Your task to perform on an android device: Show me productivity apps on the Play Store Image 0: 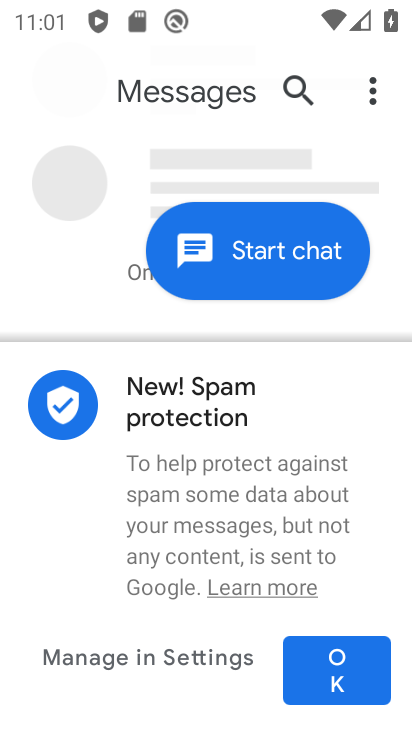
Step 0: press back button
Your task to perform on an android device: Show me productivity apps on the Play Store Image 1: 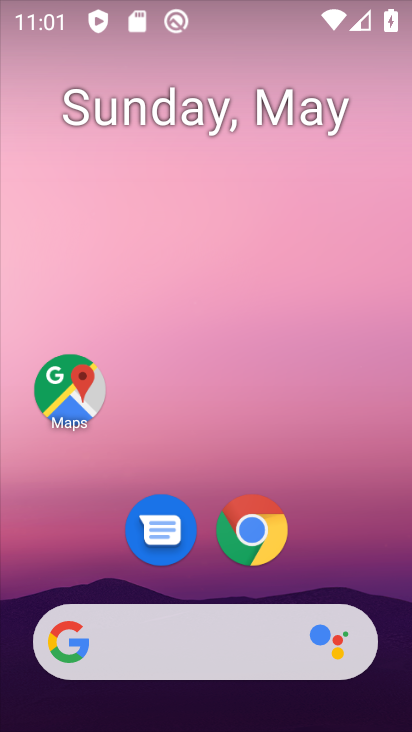
Step 1: drag from (203, 594) to (241, 21)
Your task to perform on an android device: Show me productivity apps on the Play Store Image 2: 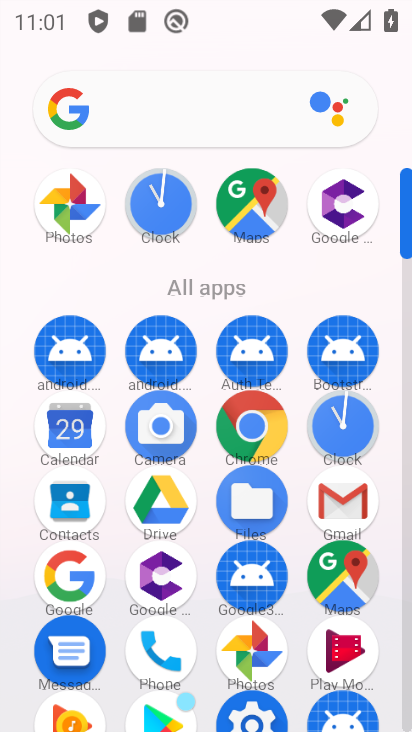
Step 2: click (164, 720)
Your task to perform on an android device: Show me productivity apps on the Play Store Image 3: 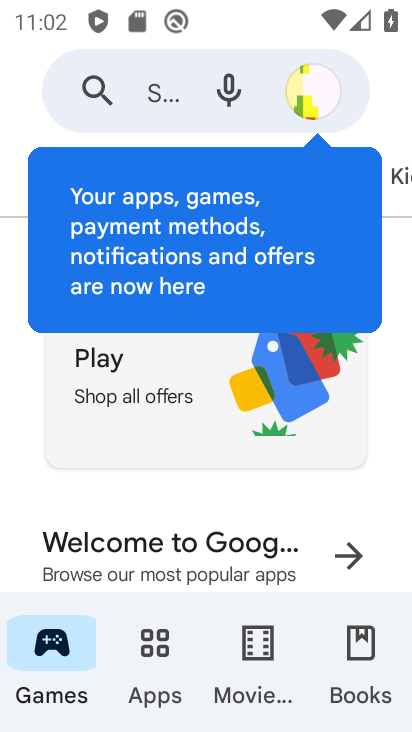
Step 3: click (162, 645)
Your task to perform on an android device: Show me productivity apps on the Play Store Image 4: 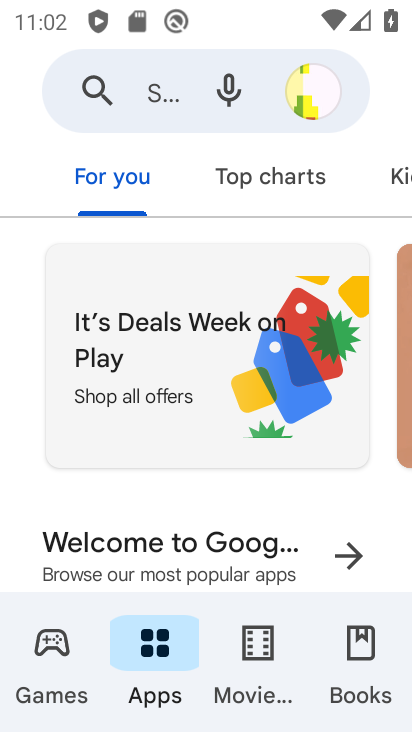
Step 4: drag from (184, 534) to (301, 15)
Your task to perform on an android device: Show me productivity apps on the Play Store Image 5: 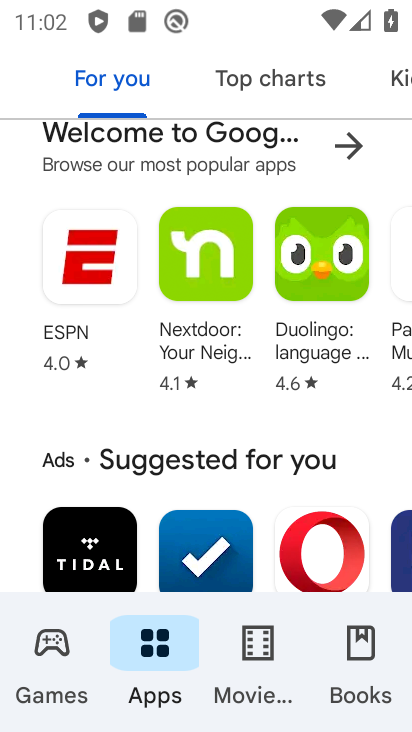
Step 5: drag from (224, 553) to (276, 43)
Your task to perform on an android device: Show me productivity apps on the Play Store Image 6: 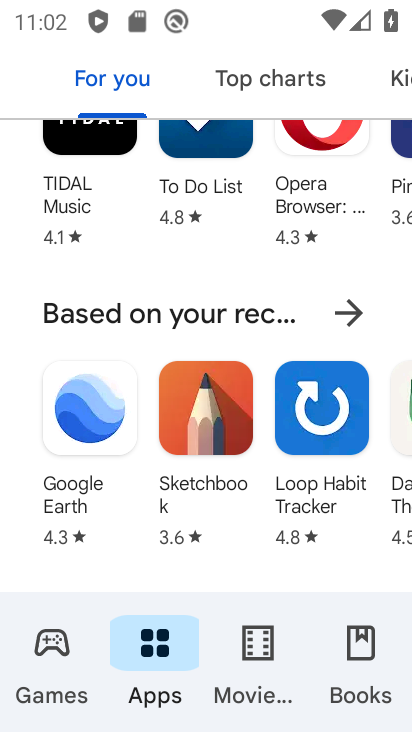
Step 6: drag from (255, 559) to (328, 74)
Your task to perform on an android device: Show me productivity apps on the Play Store Image 7: 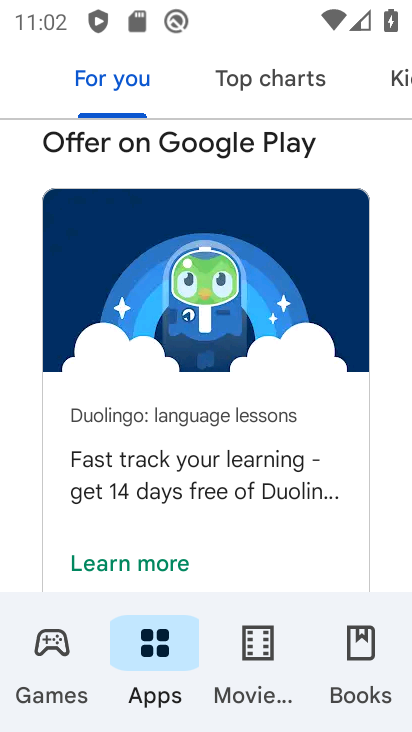
Step 7: drag from (241, 523) to (297, 54)
Your task to perform on an android device: Show me productivity apps on the Play Store Image 8: 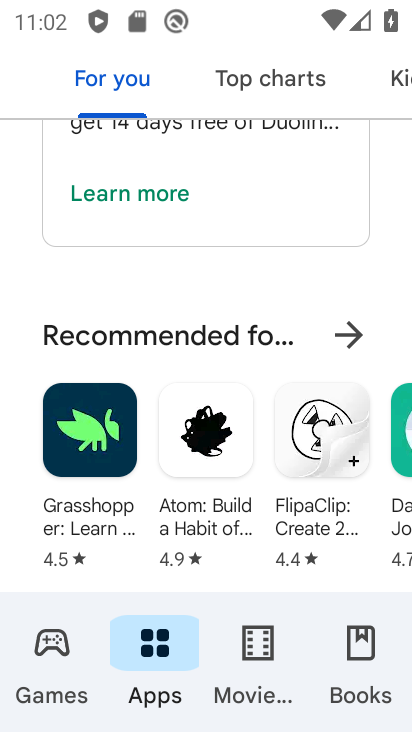
Step 8: drag from (197, 515) to (218, 117)
Your task to perform on an android device: Show me productivity apps on the Play Store Image 9: 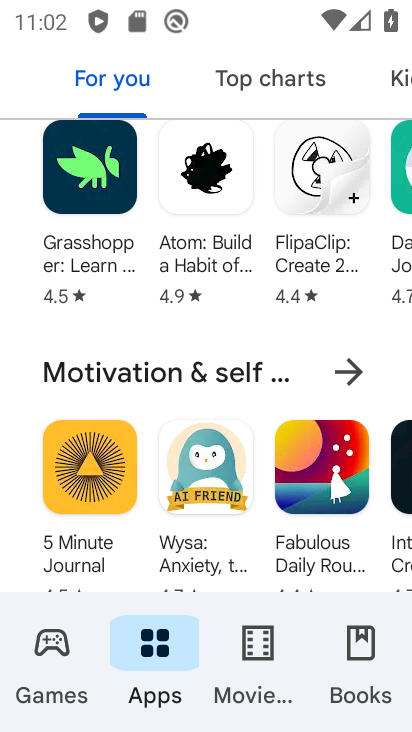
Step 9: drag from (284, 509) to (319, 111)
Your task to perform on an android device: Show me productivity apps on the Play Store Image 10: 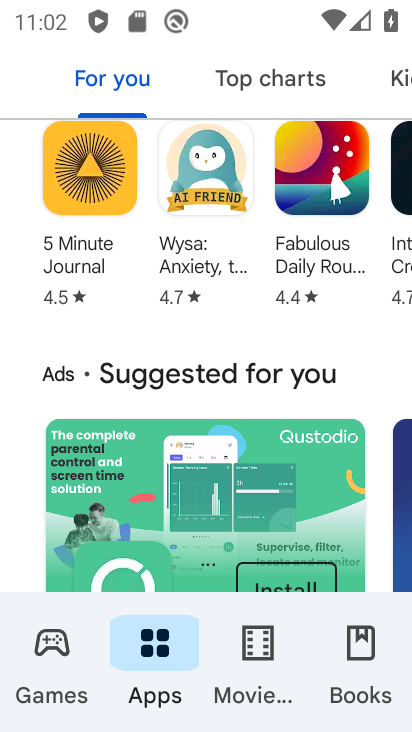
Step 10: drag from (186, 565) to (258, 66)
Your task to perform on an android device: Show me productivity apps on the Play Store Image 11: 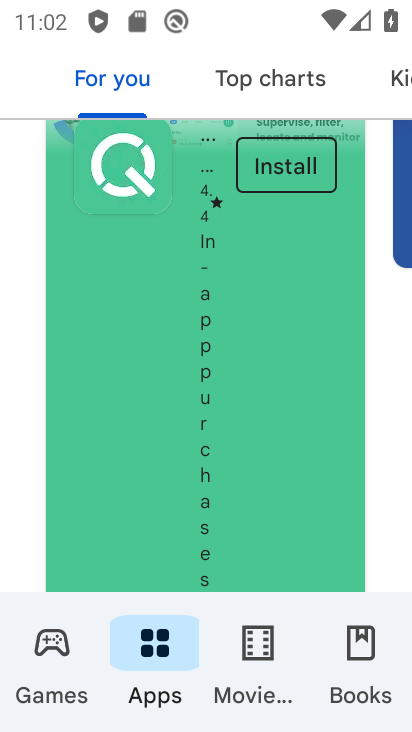
Step 11: drag from (179, 539) to (312, 6)
Your task to perform on an android device: Show me productivity apps on the Play Store Image 12: 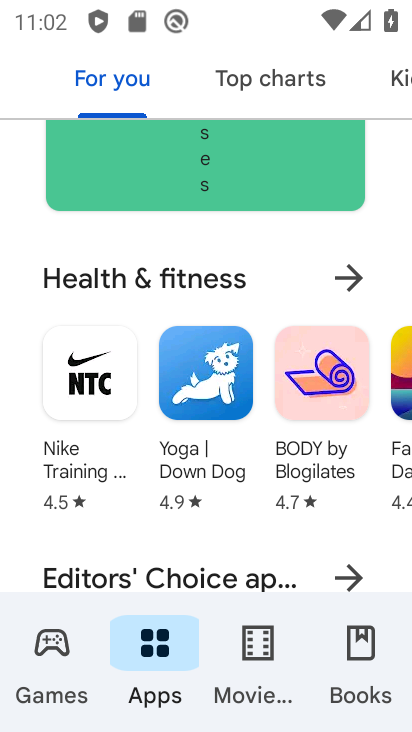
Step 12: drag from (183, 504) to (260, 125)
Your task to perform on an android device: Show me productivity apps on the Play Store Image 13: 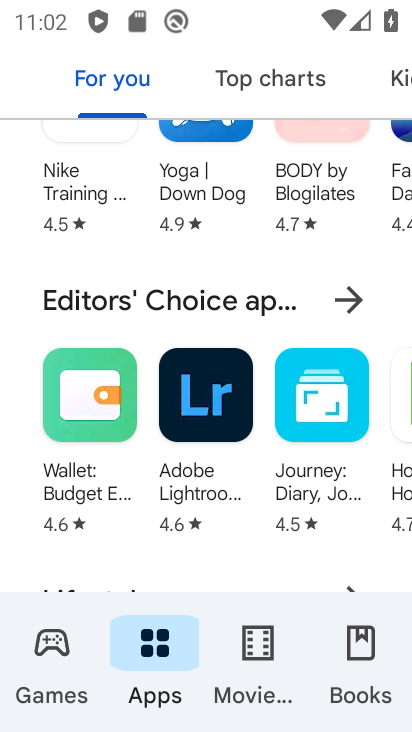
Step 13: drag from (202, 510) to (256, 186)
Your task to perform on an android device: Show me productivity apps on the Play Store Image 14: 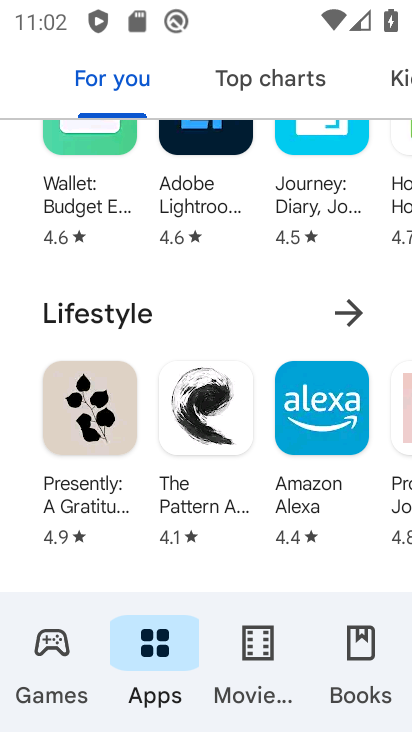
Step 14: drag from (152, 580) to (250, 81)
Your task to perform on an android device: Show me productivity apps on the Play Store Image 15: 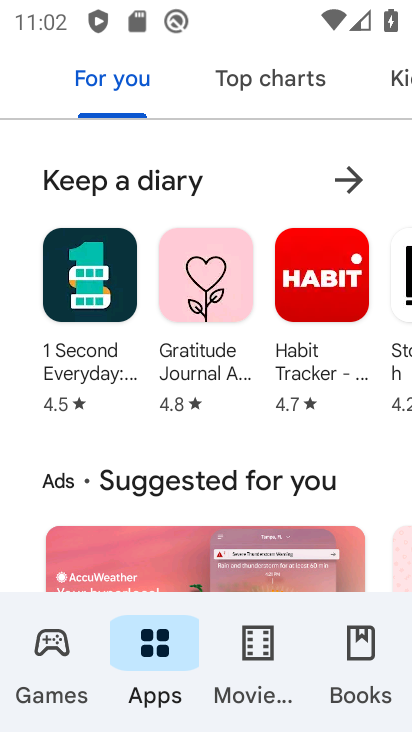
Step 15: drag from (193, 428) to (299, 1)
Your task to perform on an android device: Show me productivity apps on the Play Store Image 16: 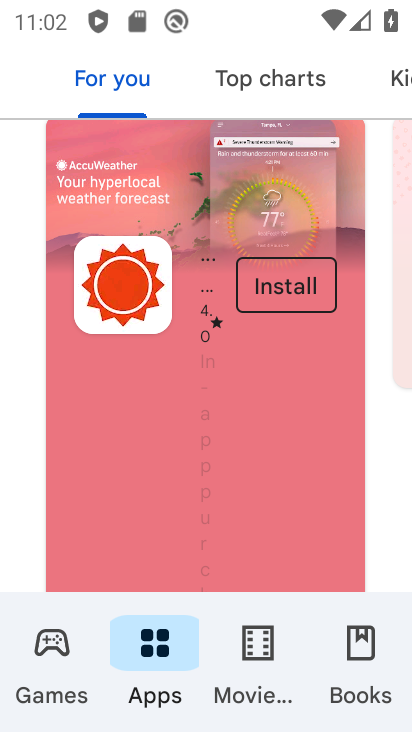
Step 16: drag from (203, 474) to (278, 0)
Your task to perform on an android device: Show me productivity apps on the Play Store Image 17: 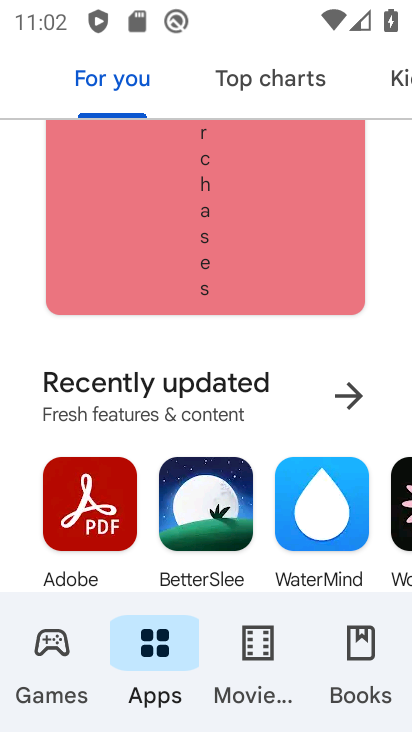
Step 17: drag from (226, 513) to (274, 58)
Your task to perform on an android device: Show me productivity apps on the Play Store Image 18: 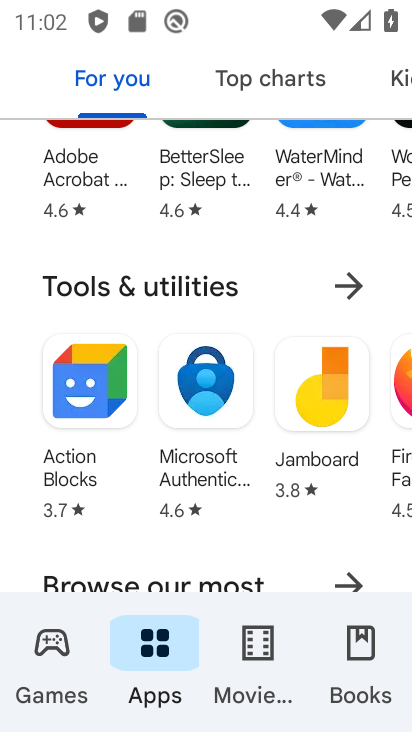
Step 18: drag from (197, 519) to (274, 77)
Your task to perform on an android device: Show me productivity apps on the Play Store Image 19: 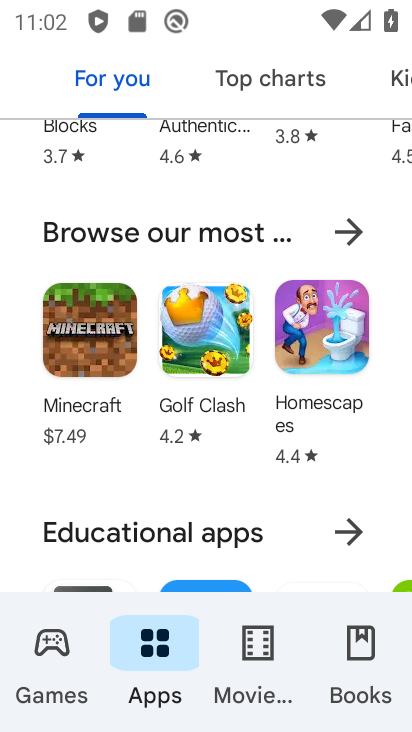
Step 19: drag from (243, 500) to (307, 155)
Your task to perform on an android device: Show me productivity apps on the Play Store Image 20: 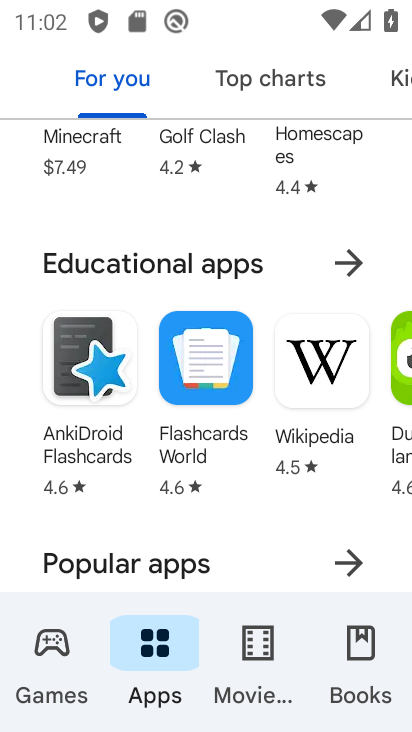
Step 20: drag from (172, 489) to (267, 104)
Your task to perform on an android device: Show me productivity apps on the Play Store Image 21: 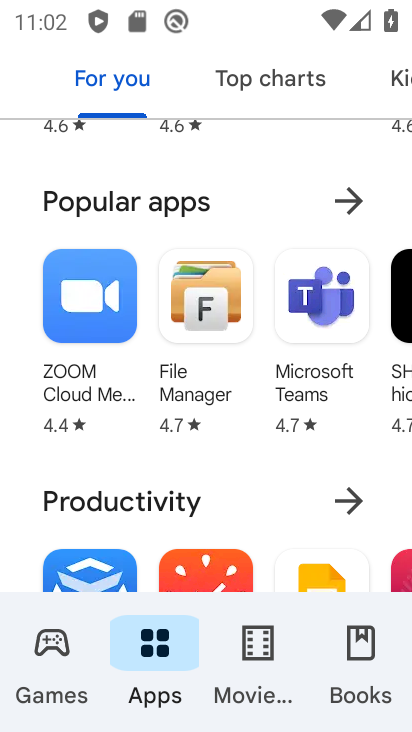
Step 21: drag from (214, 530) to (280, 186)
Your task to perform on an android device: Show me productivity apps on the Play Store Image 22: 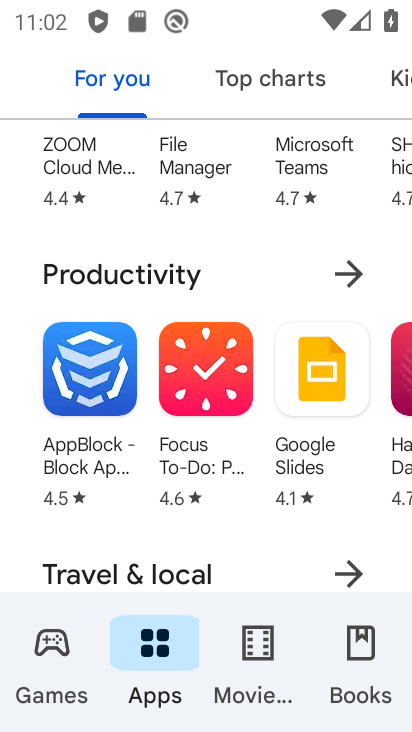
Step 22: click (347, 272)
Your task to perform on an android device: Show me productivity apps on the Play Store Image 23: 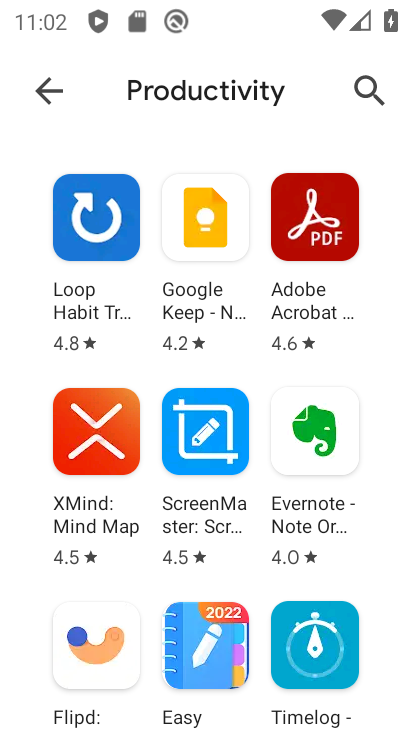
Step 23: task complete